Your task to perform on an android device: Go to notification settings Image 0: 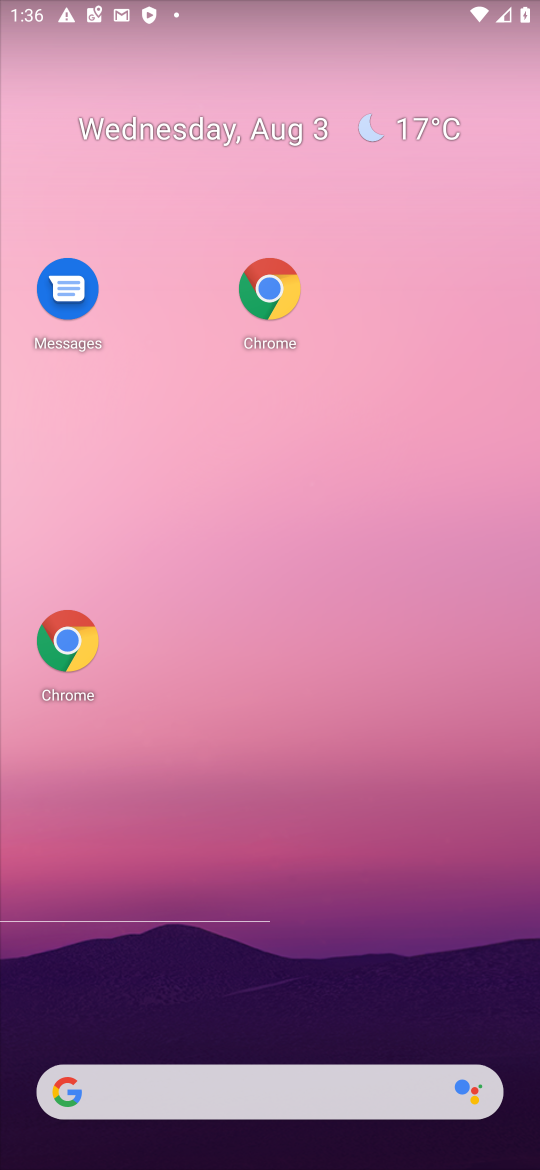
Step 0: drag from (291, 900) to (271, 263)
Your task to perform on an android device: Go to notification settings Image 1: 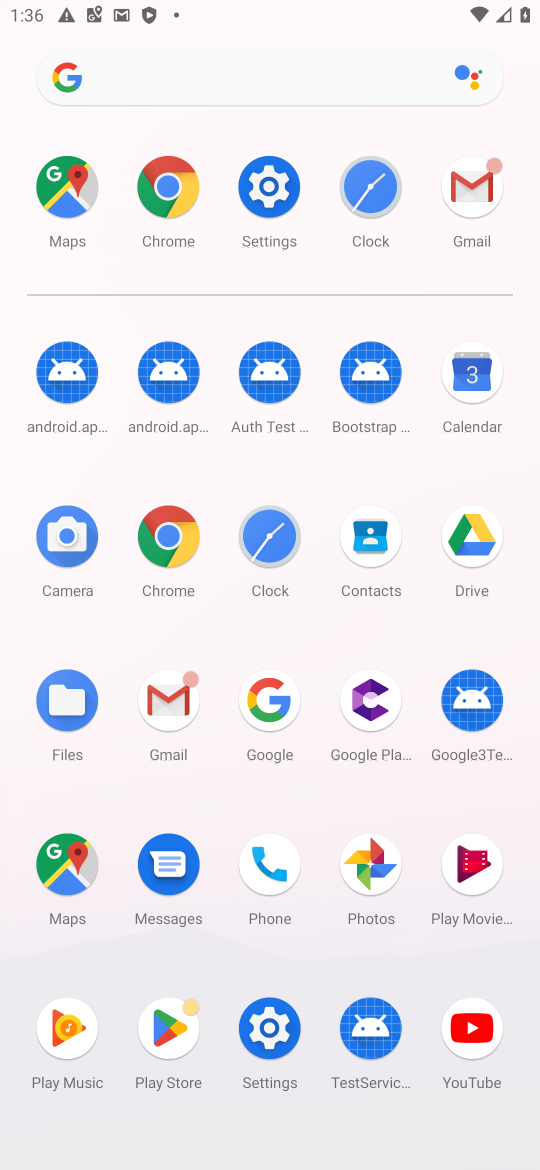
Step 1: click (284, 174)
Your task to perform on an android device: Go to notification settings Image 2: 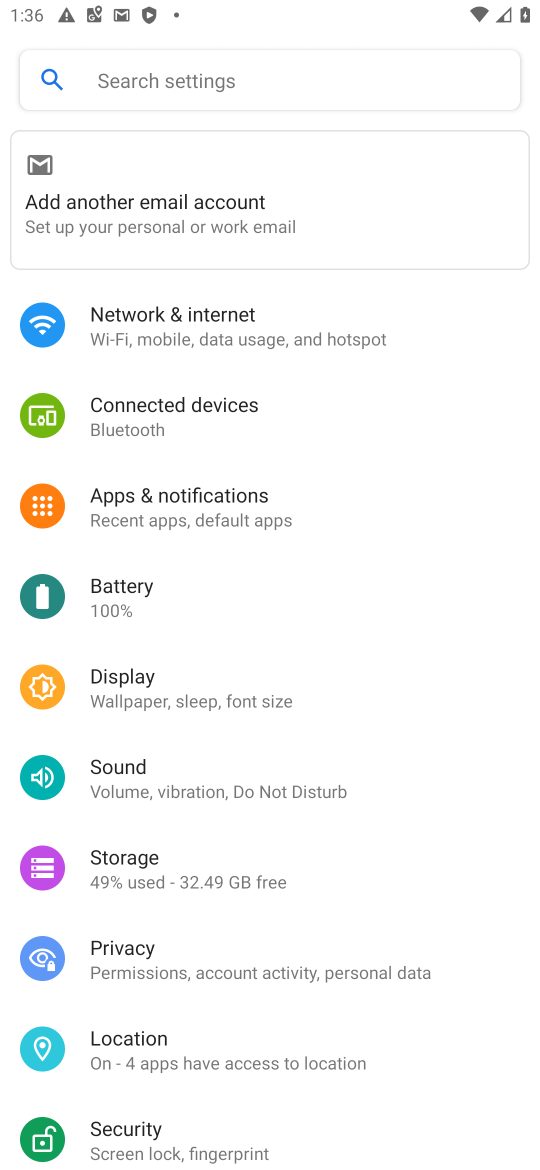
Step 2: click (135, 529)
Your task to perform on an android device: Go to notification settings Image 3: 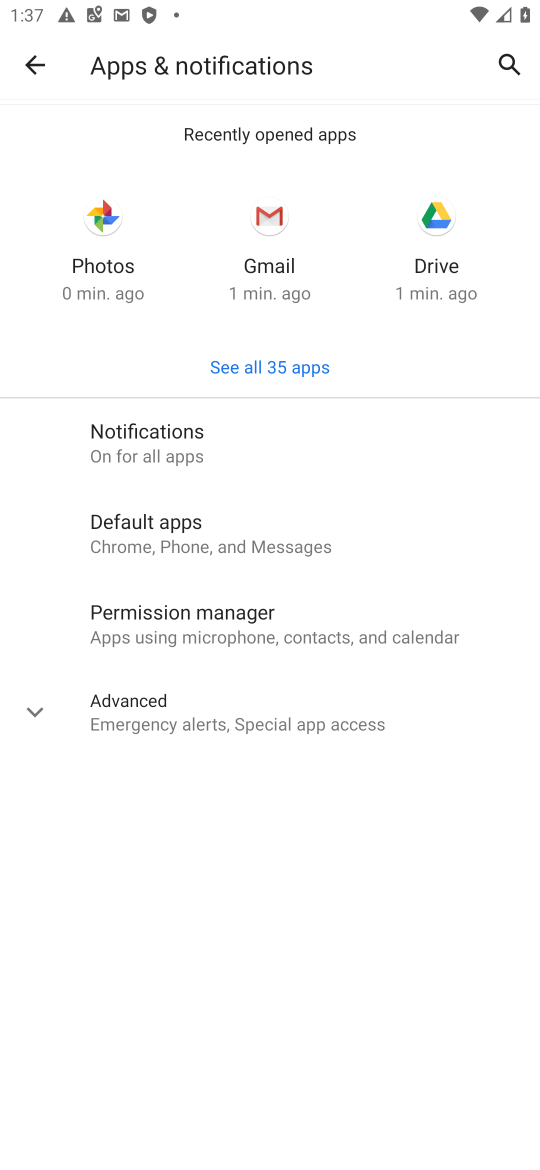
Step 3: task complete